Your task to perform on an android device: What's the weather going to be tomorrow? Image 0: 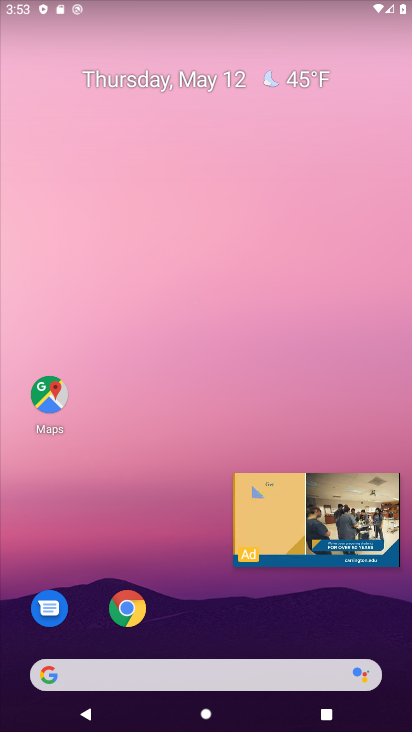
Step 0: click (358, 509)
Your task to perform on an android device: What's the weather going to be tomorrow? Image 1: 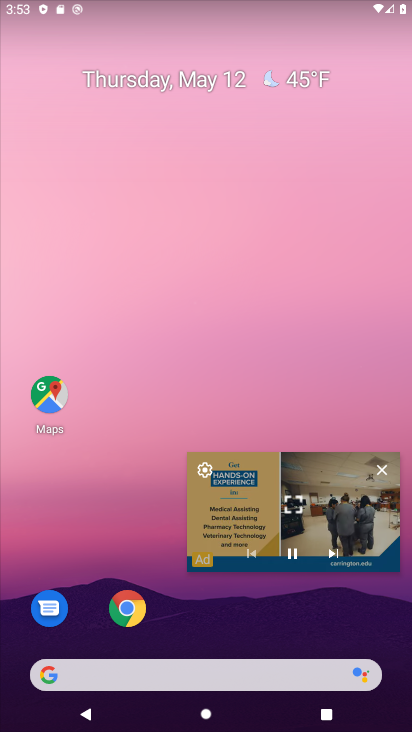
Step 1: click (357, 504)
Your task to perform on an android device: What's the weather going to be tomorrow? Image 2: 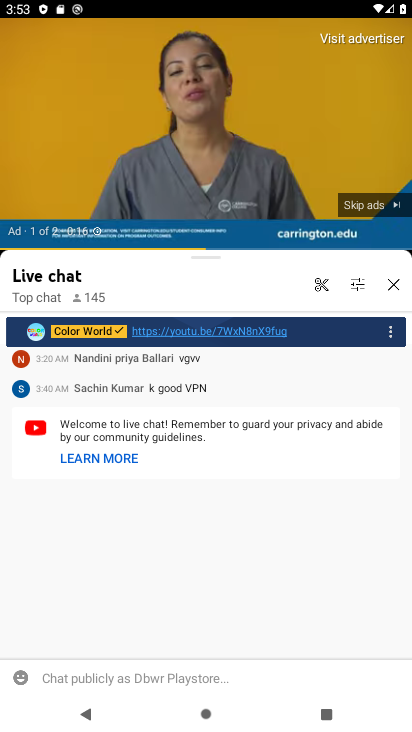
Step 2: click (393, 287)
Your task to perform on an android device: What's the weather going to be tomorrow? Image 3: 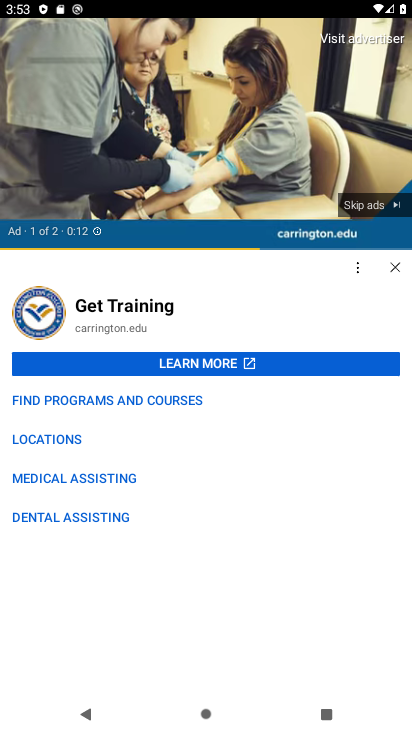
Step 3: press back button
Your task to perform on an android device: What's the weather going to be tomorrow? Image 4: 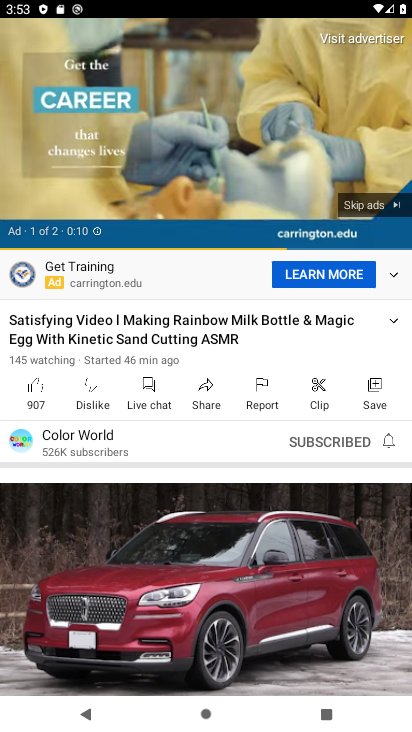
Step 4: press back button
Your task to perform on an android device: What's the weather going to be tomorrow? Image 5: 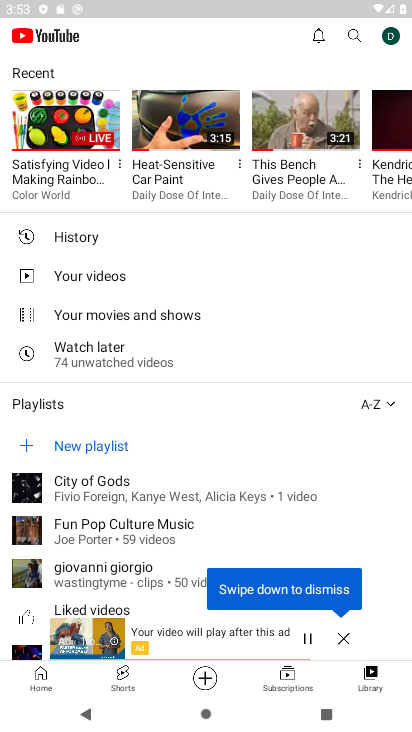
Step 5: click (332, 639)
Your task to perform on an android device: What's the weather going to be tomorrow? Image 6: 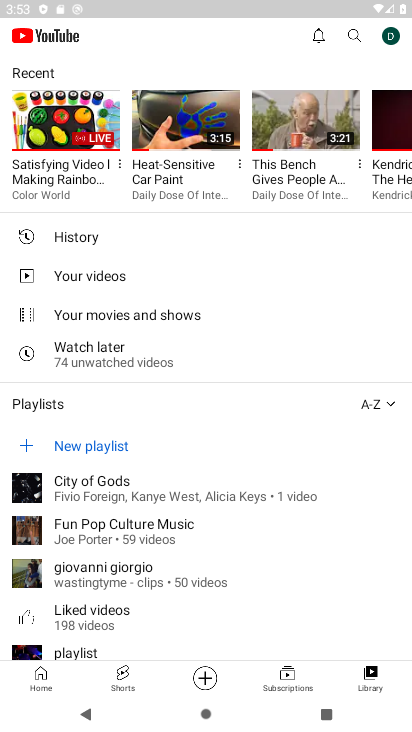
Step 6: click (198, 713)
Your task to perform on an android device: What's the weather going to be tomorrow? Image 7: 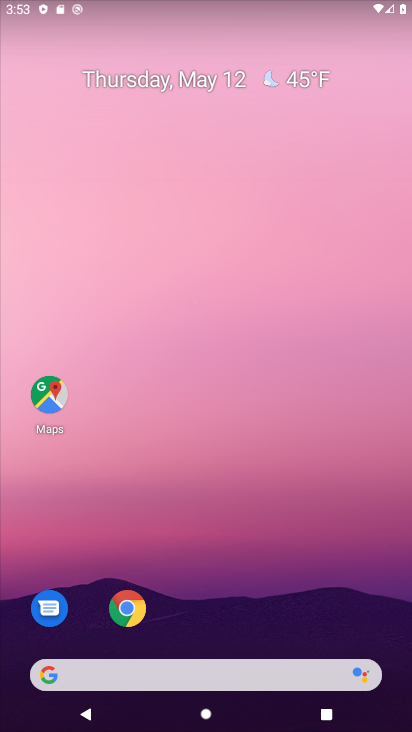
Step 7: click (196, 668)
Your task to perform on an android device: What's the weather going to be tomorrow? Image 8: 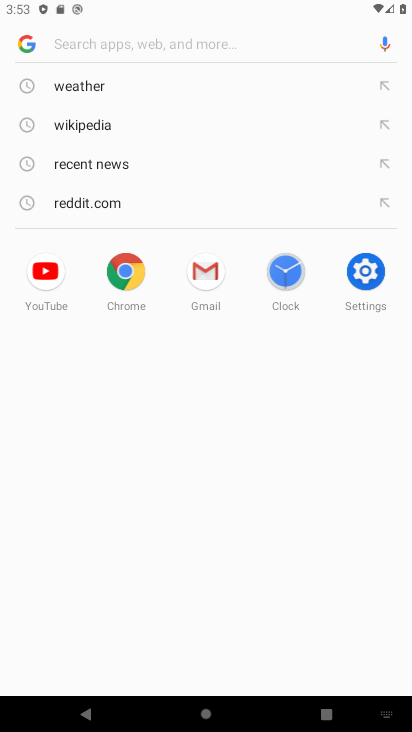
Step 8: click (60, 98)
Your task to perform on an android device: What's the weather going to be tomorrow? Image 9: 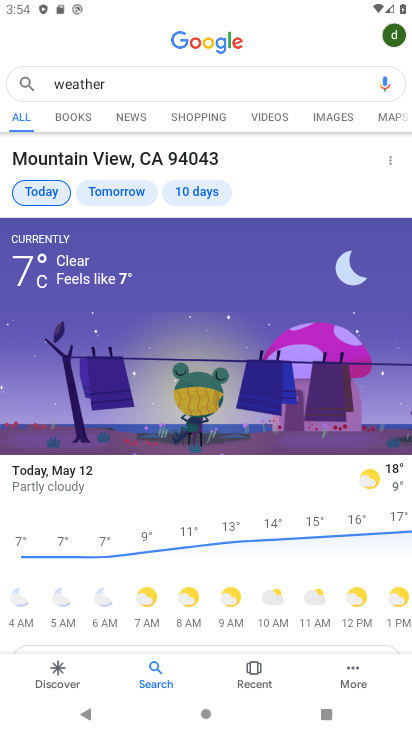
Step 9: click (23, 98)
Your task to perform on an android device: What's the weather going to be tomorrow? Image 10: 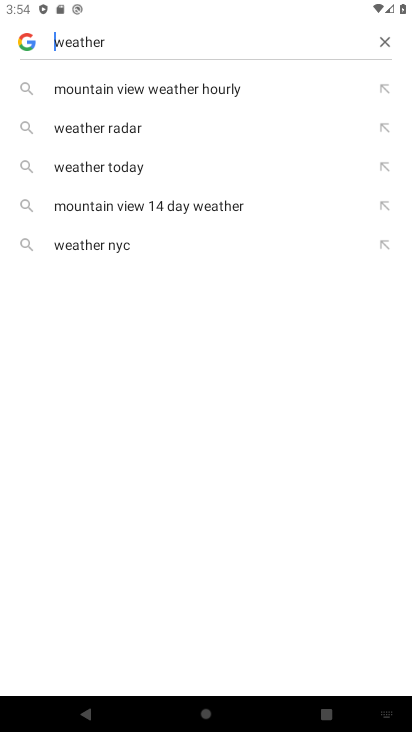
Step 10: click (127, 46)
Your task to perform on an android device: What's the weather going to be tomorrow? Image 11: 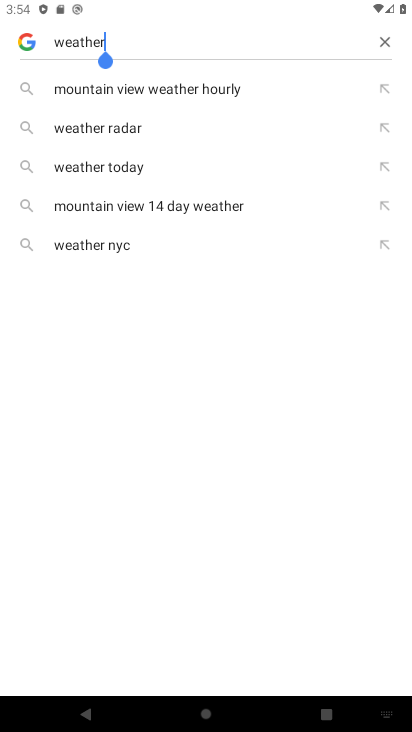
Step 11: click (122, 154)
Your task to perform on an android device: What's the weather going to be tomorrow? Image 12: 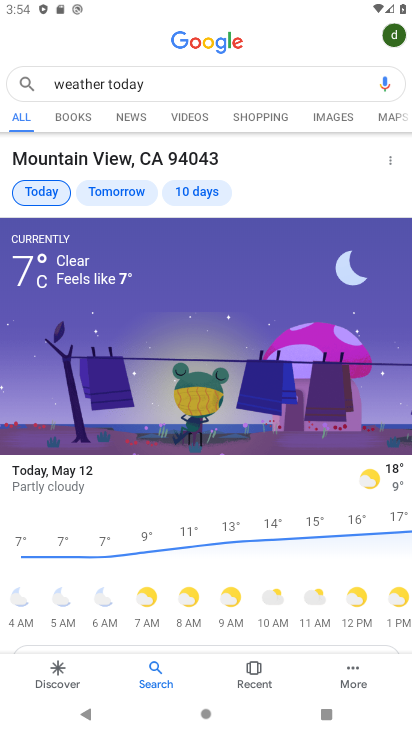
Step 12: click (110, 183)
Your task to perform on an android device: What's the weather going to be tomorrow? Image 13: 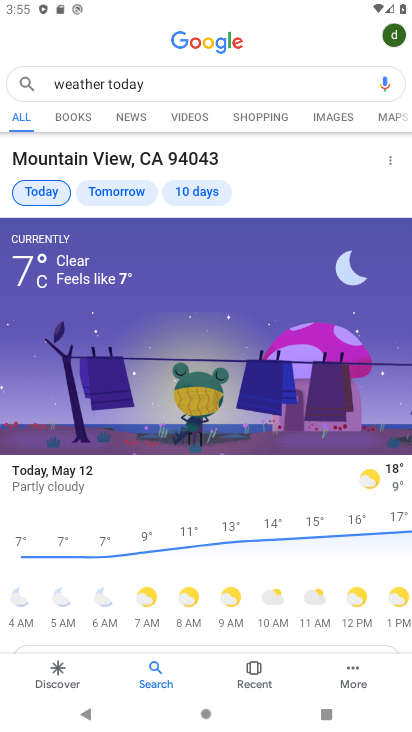
Step 13: click (110, 183)
Your task to perform on an android device: What's the weather going to be tomorrow? Image 14: 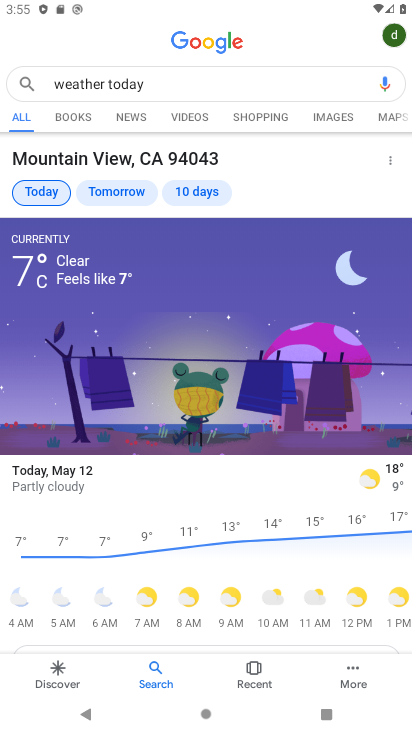
Step 14: click (118, 184)
Your task to perform on an android device: What's the weather going to be tomorrow? Image 15: 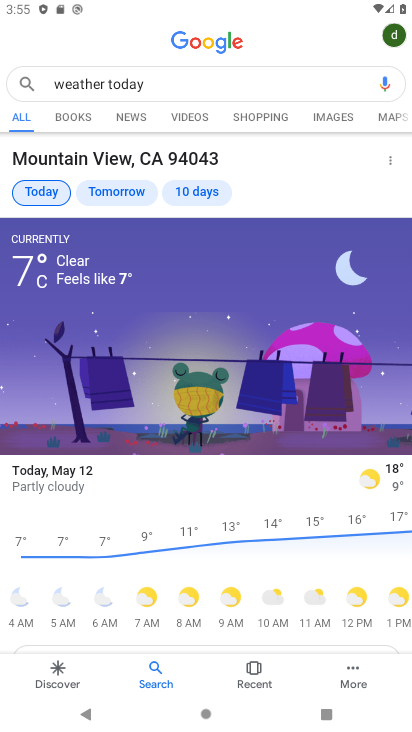
Step 15: click (118, 187)
Your task to perform on an android device: What's the weather going to be tomorrow? Image 16: 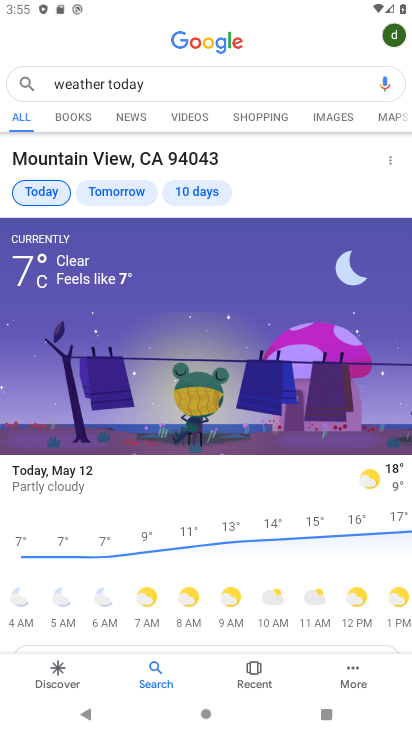
Step 16: click (118, 187)
Your task to perform on an android device: What's the weather going to be tomorrow? Image 17: 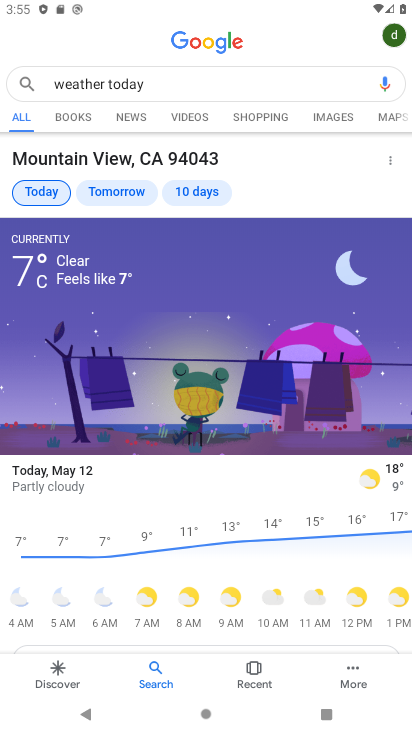
Step 17: task complete